Your task to perform on an android device: toggle translation in the chrome app Image 0: 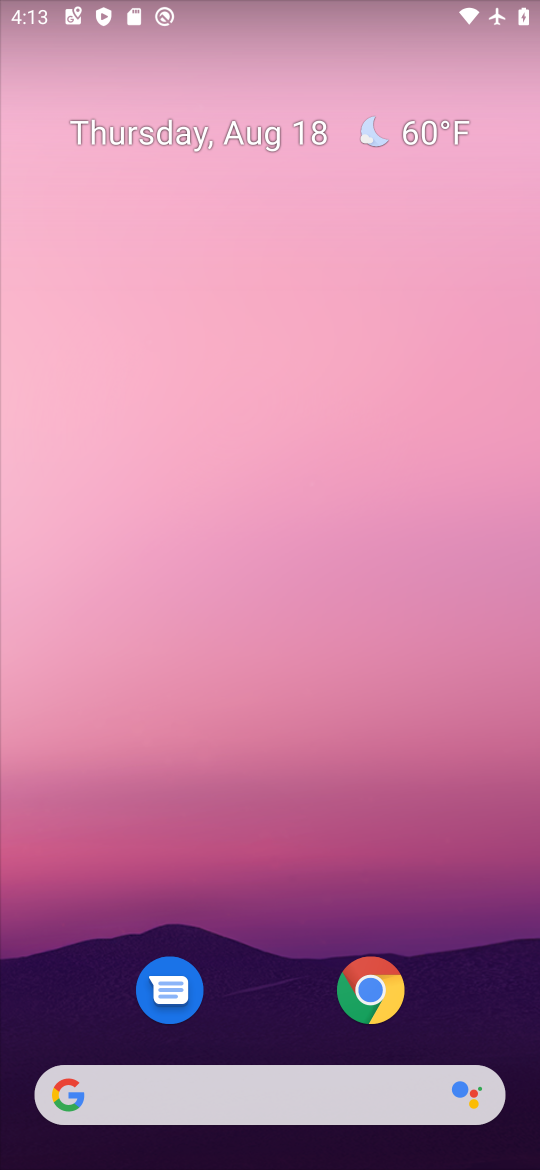
Step 0: drag from (277, 808) to (275, 40)
Your task to perform on an android device: toggle translation in the chrome app Image 1: 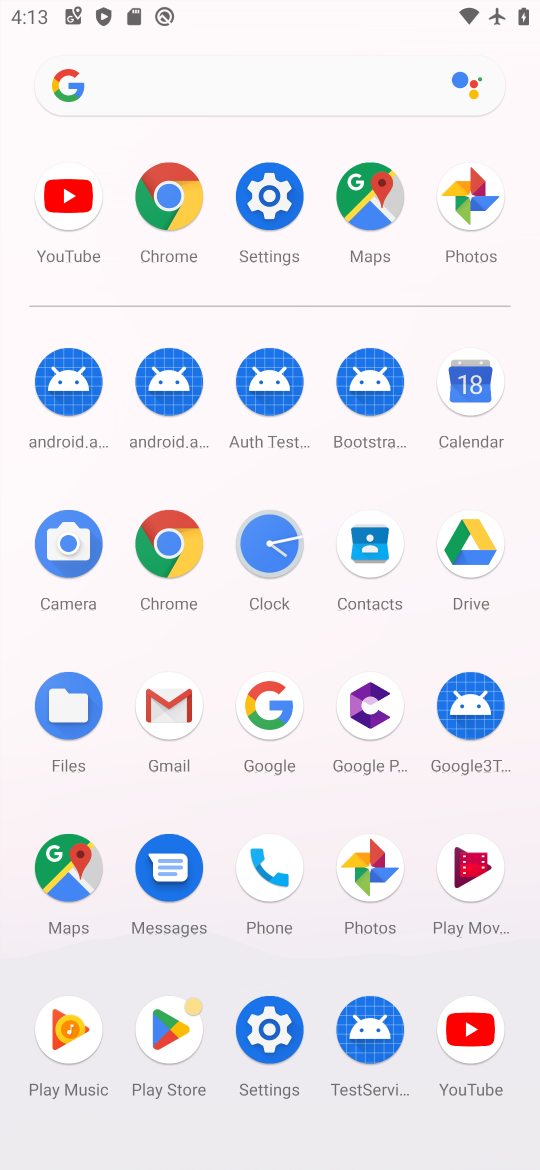
Step 1: click (180, 545)
Your task to perform on an android device: toggle translation in the chrome app Image 2: 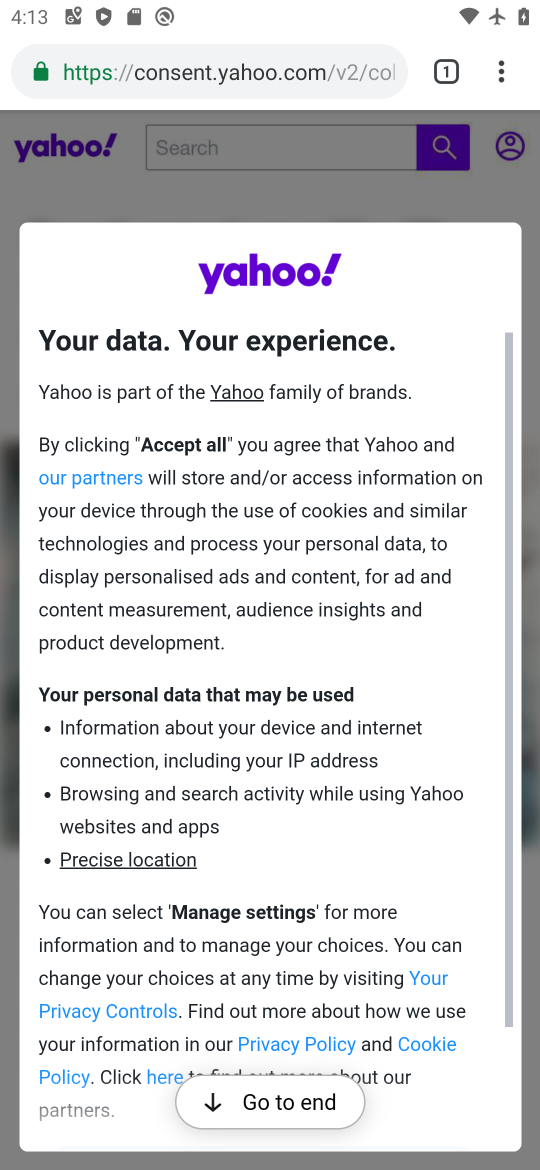
Step 2: drag from (504, 61) to (291, 864)
Your task to perform on an android device: toggle translation in the chrome app Image 3: 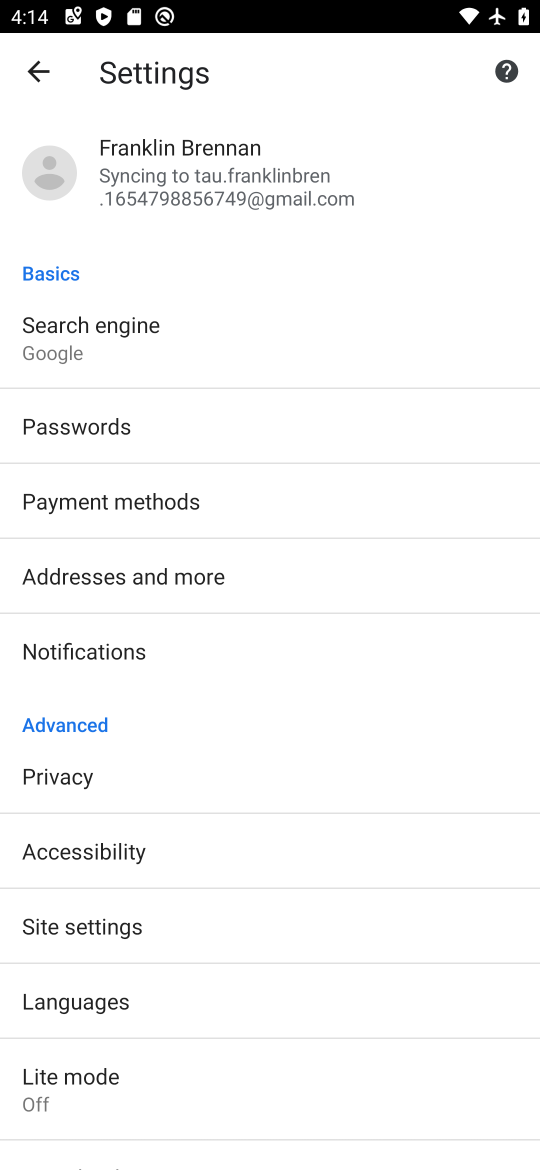
Step 3: click (148, 1000)
Your task to perform on an android device: toggle translation in the chrome app Image 4: 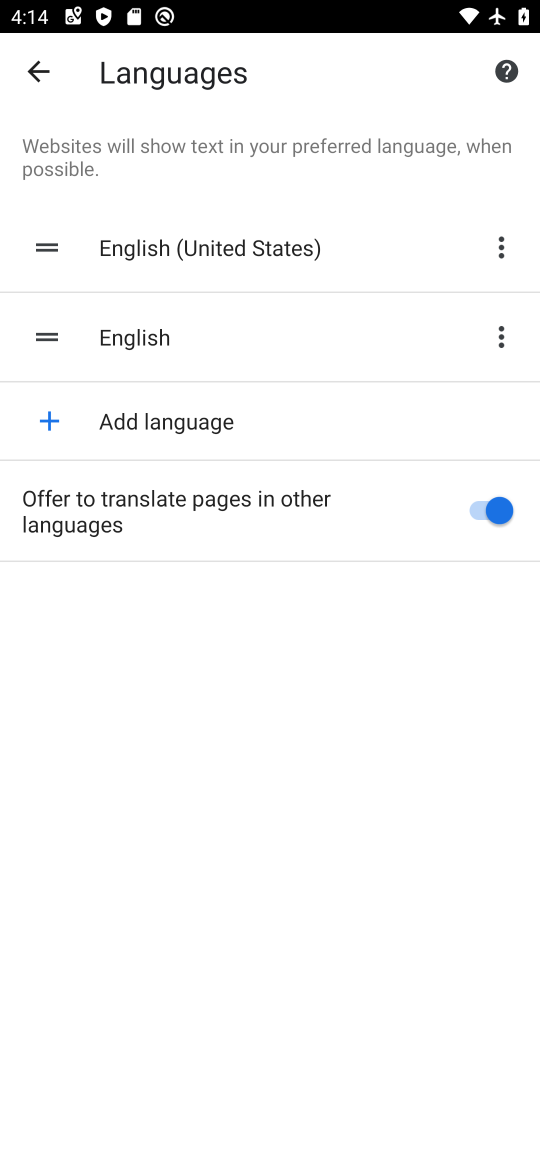
Step 4: click (492, 511)
Your task to perform on an android device: toggle translation in the chrome app Image 5: 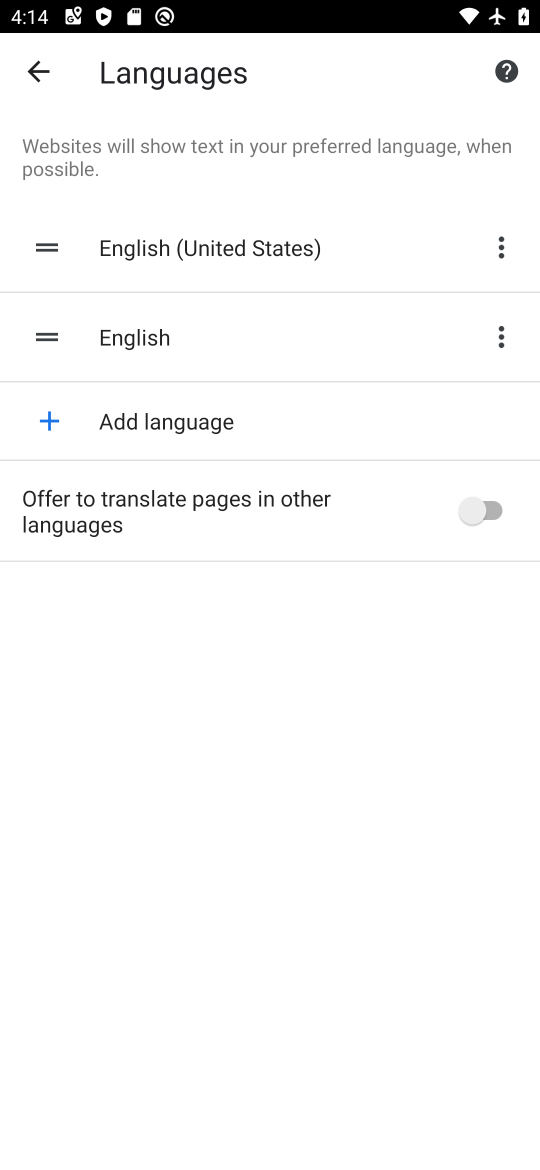
Step 5: task complete